Your task to perform on an android device: turn pop-ups on in chrome Image 0: 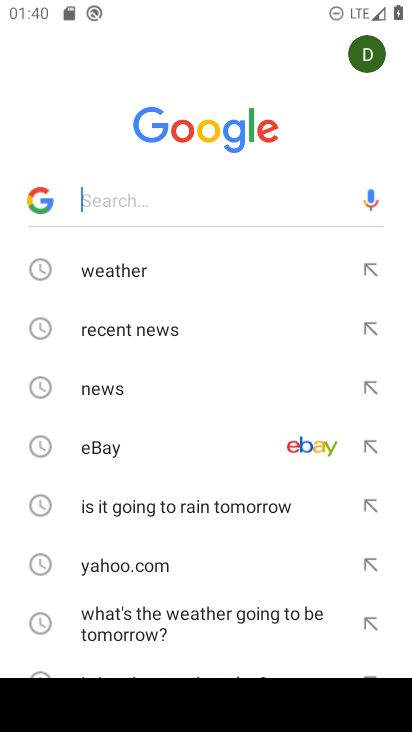
Step 0: press home button
Your task to perform on an android device: turn pop-ups on in chrome Image 1: 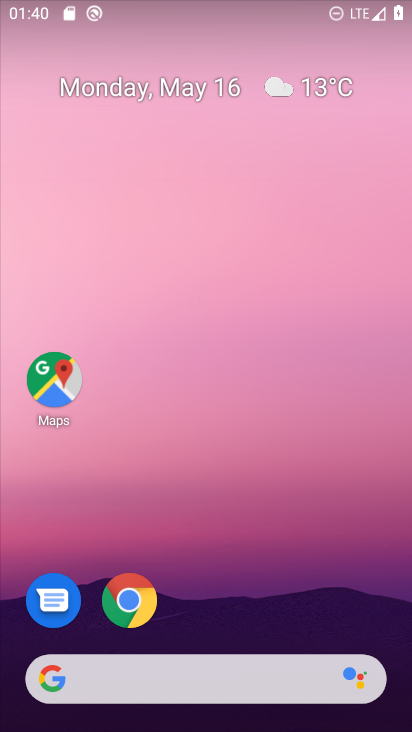
Step 1: click (125, 593)
Your task to perform on an android device: turn pop-ups on in chrome Image 2: 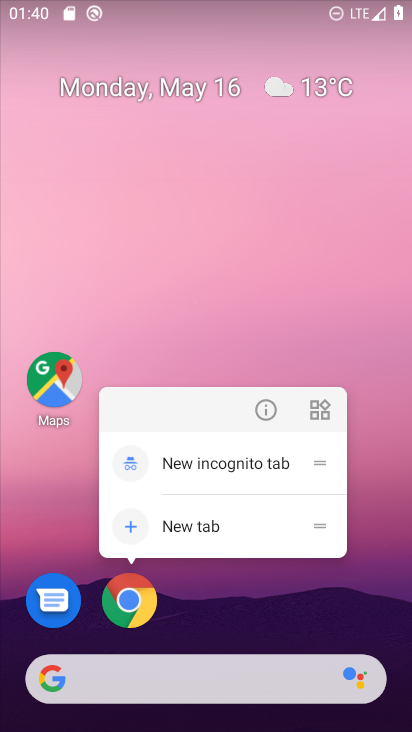
Step 2: click (127, 590)
Your task to perform on an android device: turn pop-ups on in chrome Image 3: 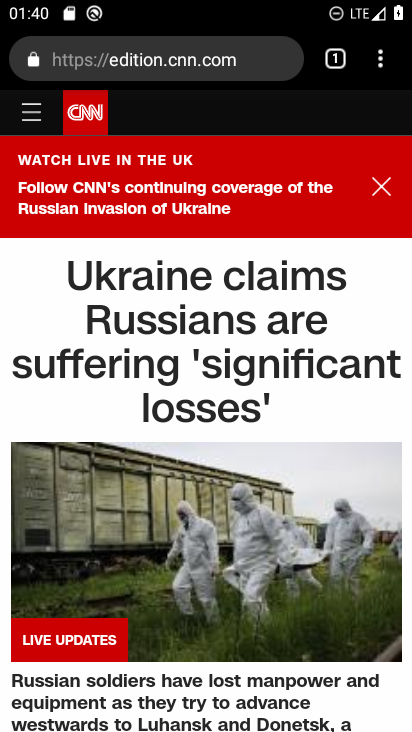
Step 3: click (385, 193)
Your task to perform on an android device: turn pop-ups on in chrome Image 4: 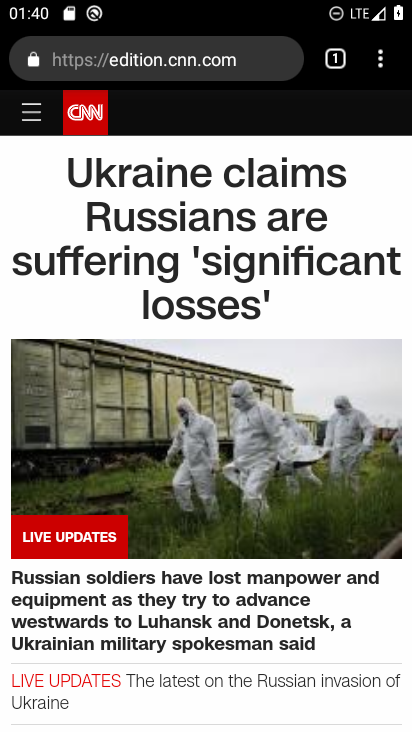
Step 4: click (384, 57)
Your task to perform on an android device: turn pop-ups on in chrome Image 5: 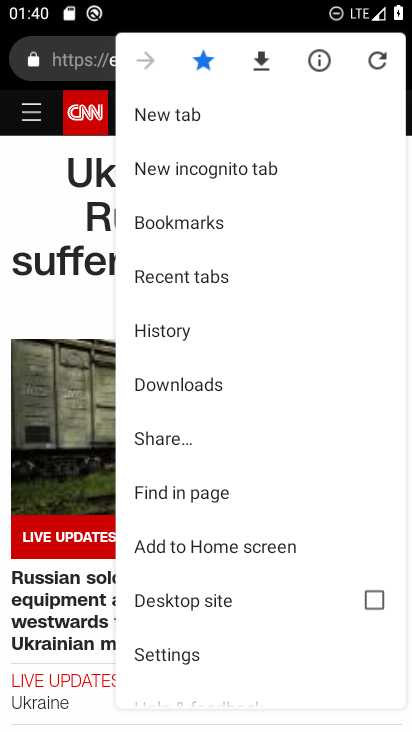
Step 5: click (215, 653)
Your task to perform on an android device: turn pop-ups on in chrome Image 6: 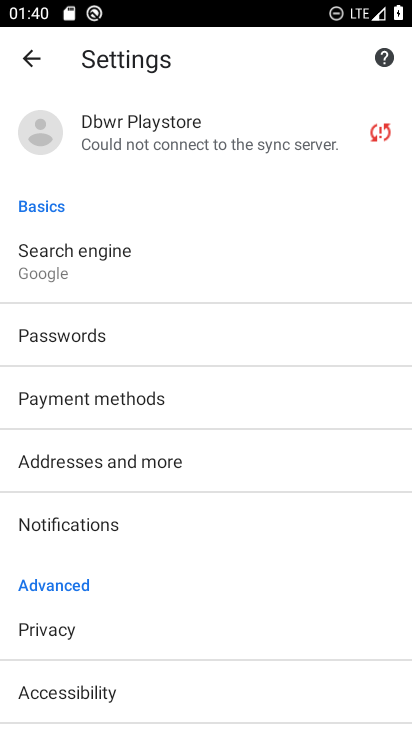
Step 6: drag from (201, 696) to (248, 198)
Your task to perform on an android device: turn pop-ups on in chrome Image 7: 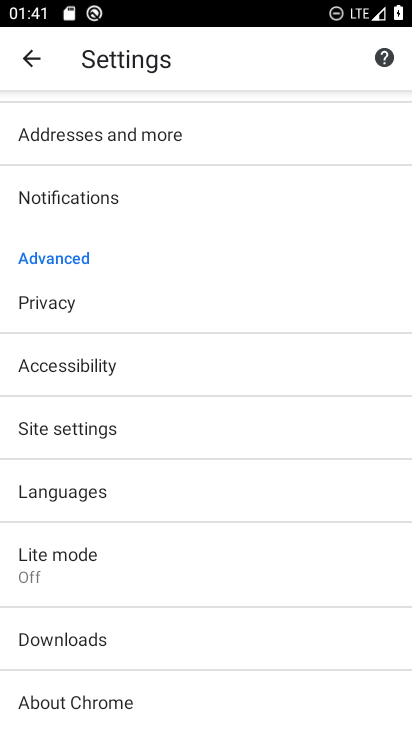
Step 7: click (133, 431)
Your task to perform on an android device: turn pop-ups on in chrome Image 8: 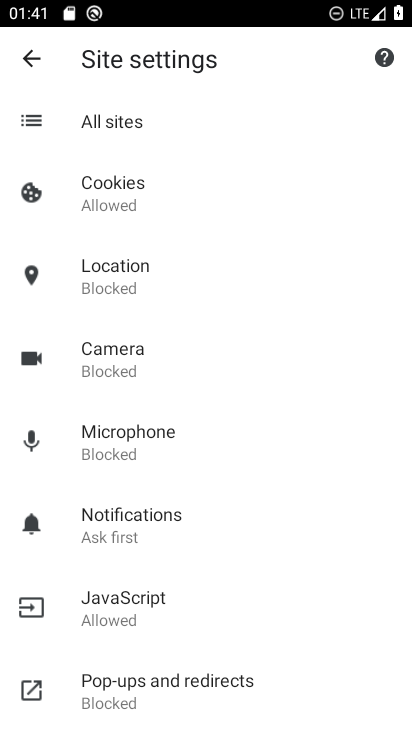
Step 8: click (192, 701)
Your task to perform on an android device: turn pop-ups on in chrome Image 9: 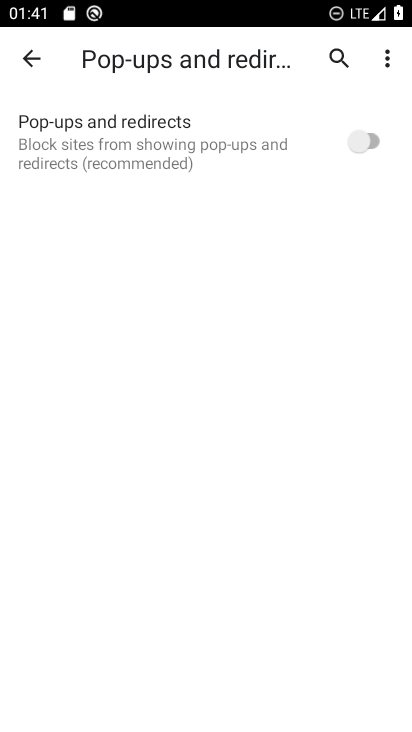
Step 9: click (369, 142)
Your task to perform on an android device: turn pop-ups on in chrome Image 10: 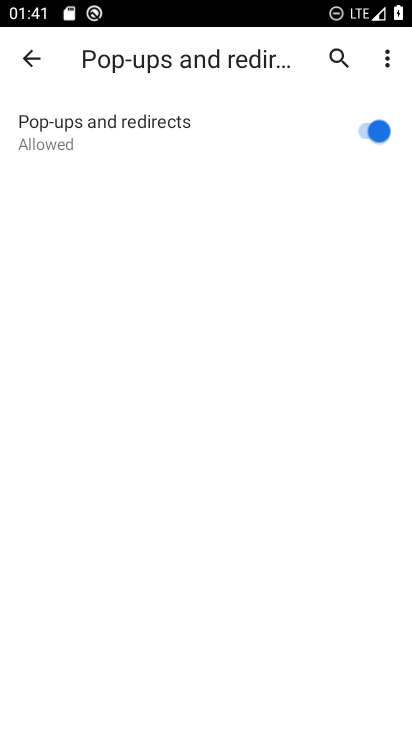
Step 10: task complete